Your task to perform on an android device: Go to Yahoo.com Image 0: 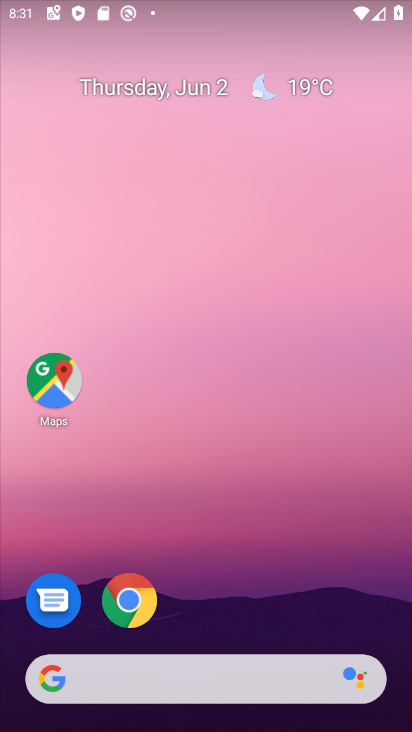
Step 0: drag from (374, 607) to (382, 195)
Your task to perform on an android device: Go to Yahoo.com Image 1: 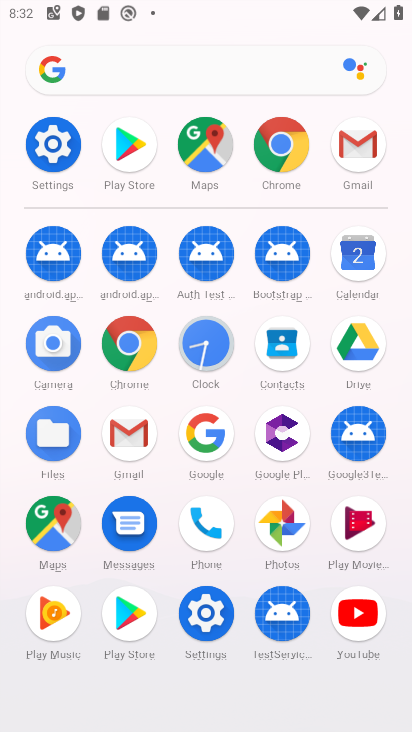
Step 1: click (149, 359)
Your task to perform on an android device: Go to Yahoo.com Image 2: 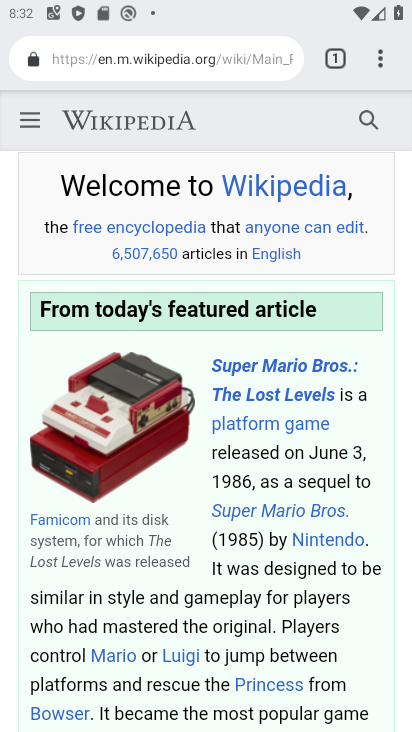
Step 2: click (225, 69)
Your task to perform on an android device: Go to Yahoo.com Image 3: 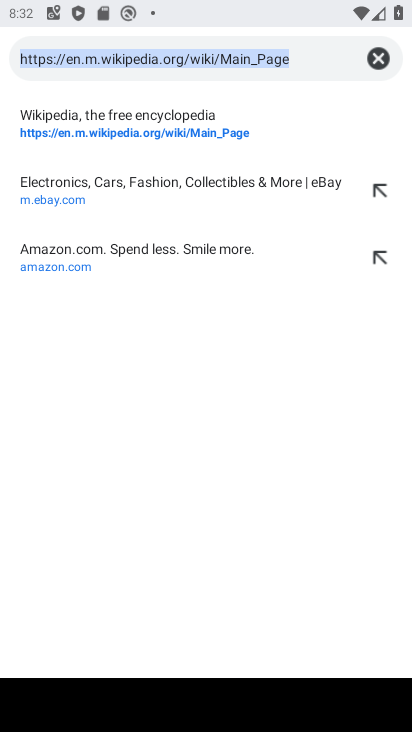
Step 3: click (379, 65)
Your task to perform on an android device: Go to Yahoo.com Image 4: 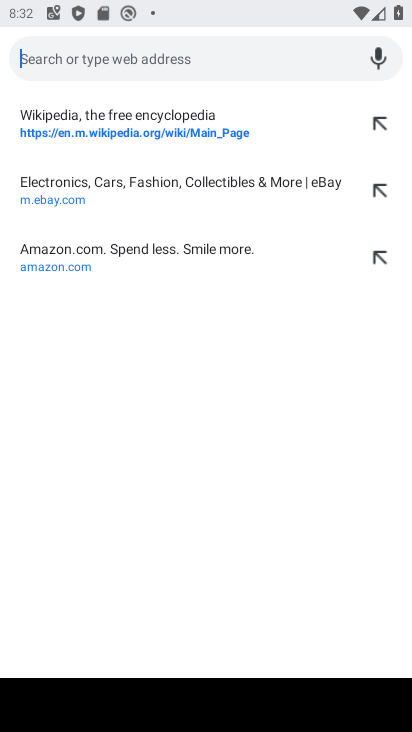
Step 4: type "yahoo.com"
Your task to perform on an android device: Go to Yahoo.com Image 5: 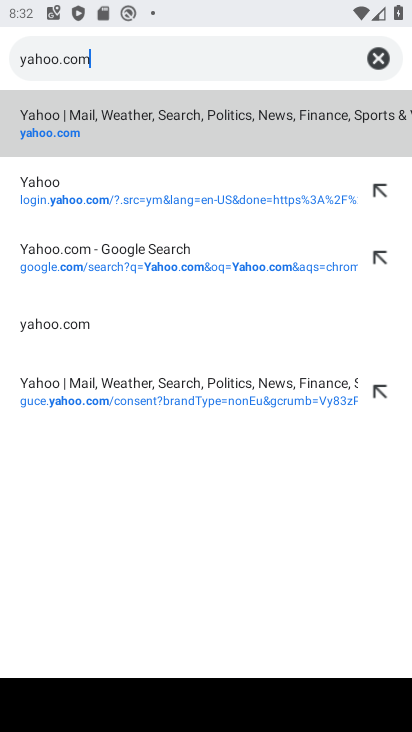
Step 5: click (184, 138)
Your task to perform on an android device: Go to Yahoo.com Image 6: 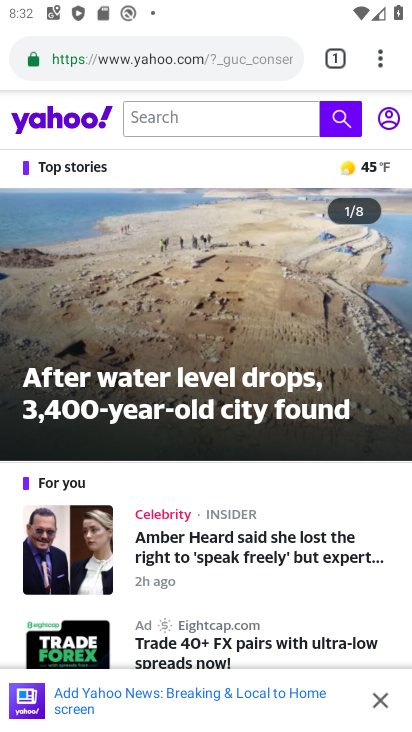
Step 6: task complete